Your task to perform on an android device: check battery use Image 0: 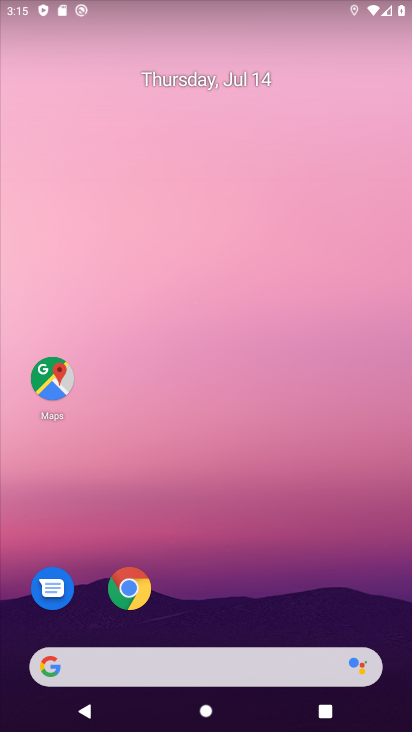
Step 0: drag from (209, 668) to (215, 93)
Your task to perform on an android device: check battery use Image 1: 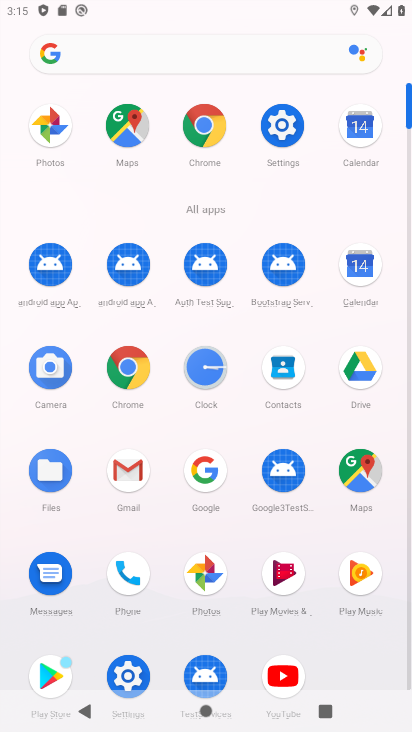
Step 1: click (282, 126)
Your task to perform on an android device: check battery use Image 2: 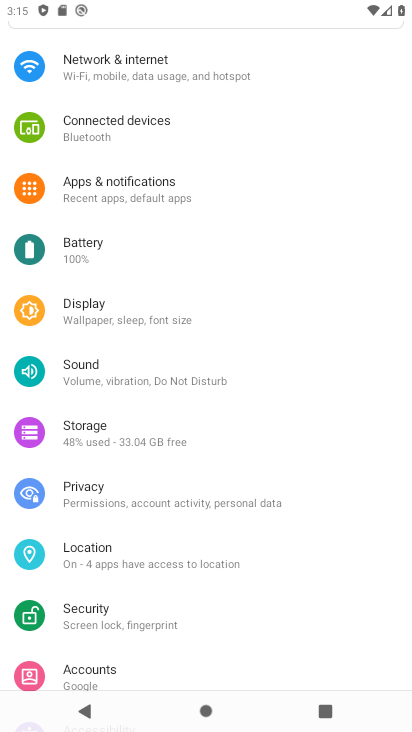
Step 2: click (90, 250)
Your task to perform on an android device: check battery use Image 3: 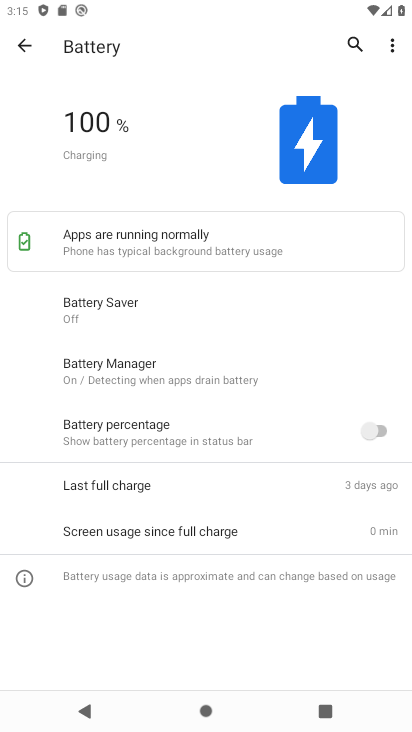
Step 3: click (395, 45)
Your task to perform on an android device: check battery use Image 4: 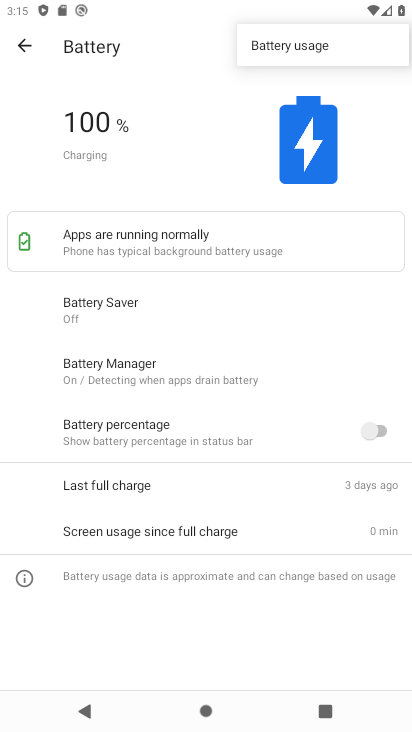
Step 4: click (314, 51)
Your task to perform on an android device: check battery use Image 5: 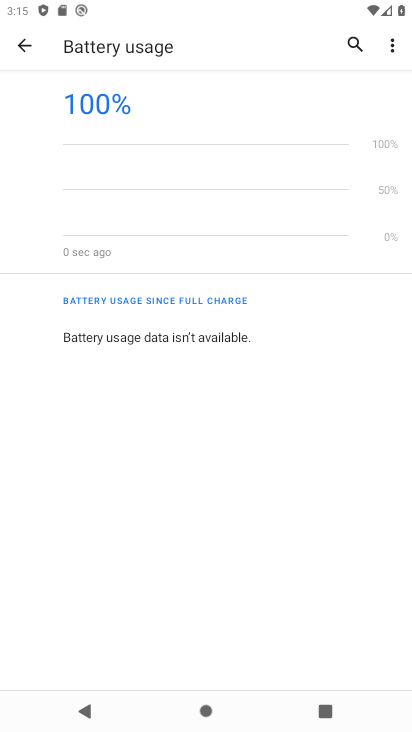
Step 5: task complete